Your task to perform on an android device: toggle notification dots Image 0: 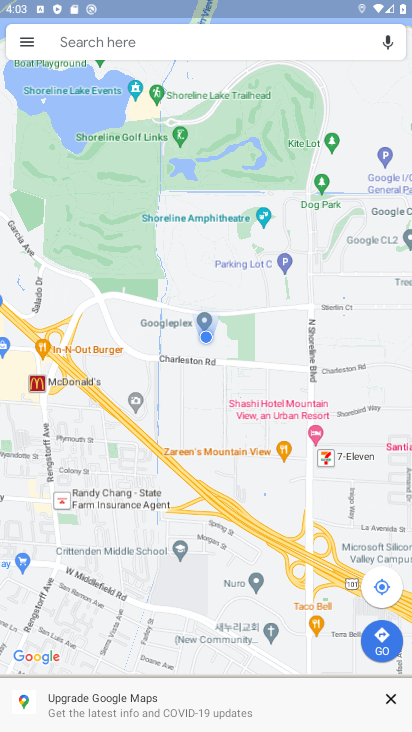
Step 0: press home button
Your task to perform on an android device: toggle notification dots Image 1: 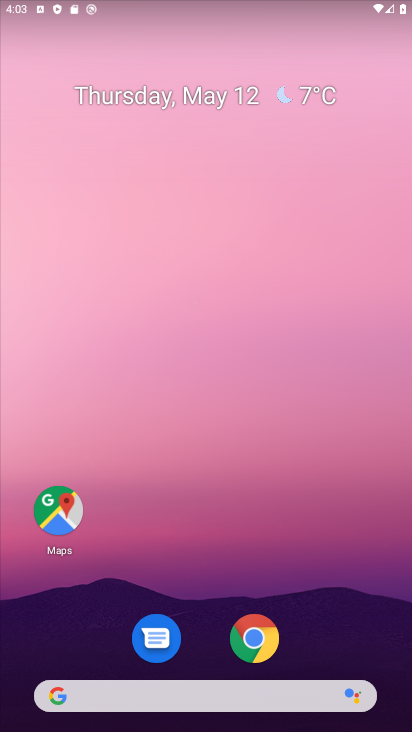
Step 1: drag from (316, 626) to (260, 118)
Your task to perform on an android device: toggle notification dots Image 2: 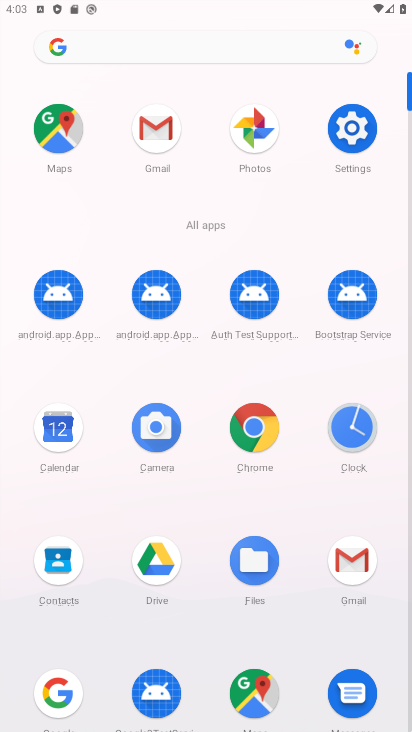
Step 2: click (341, 137)
Your task to perform on an android device: toggle notification dots Image 3: 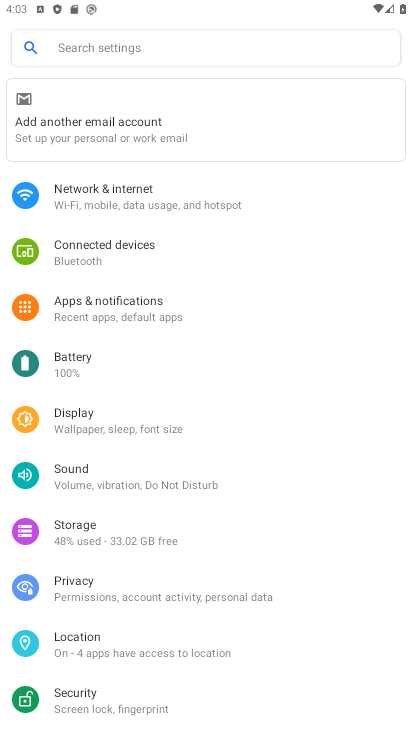
Step 3: click (126, 301)
Your task to perform on an android device: toggle notification dots Image 4: 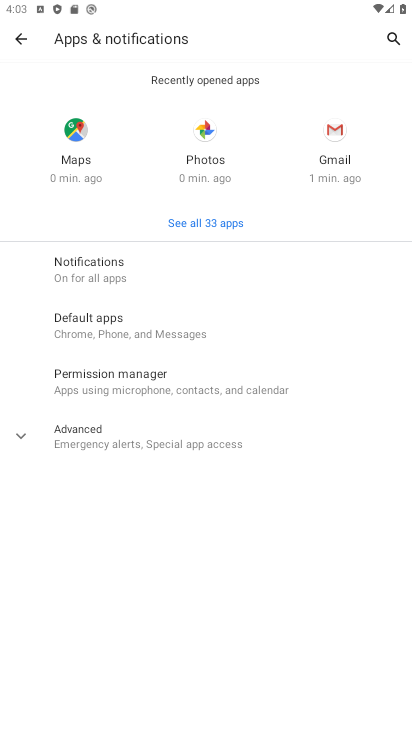
Step 4: click (157, 279)
Your task to perform on an android device: toggle notification dots Image 5: 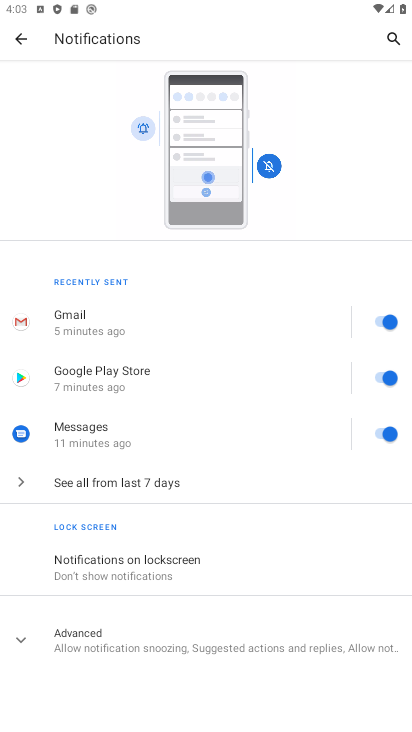
Step 5: click (150, 637)
Your task to perform on an android device: toggle notification dots Image 6: 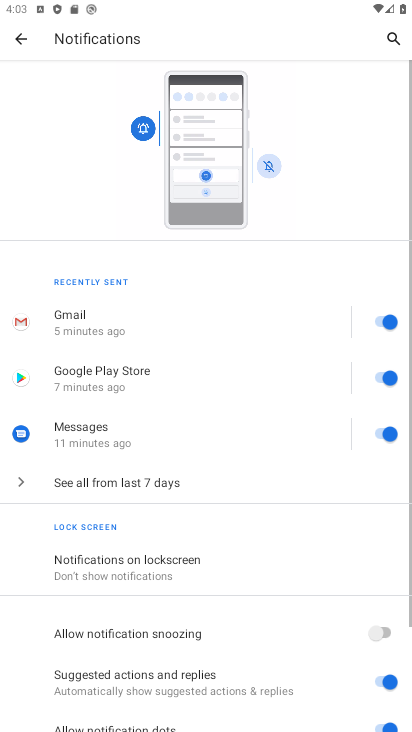
Step 6: drag from (220, 687) to (227, 385)
Your task to perform on an android device: toggle notification dots Image 7: 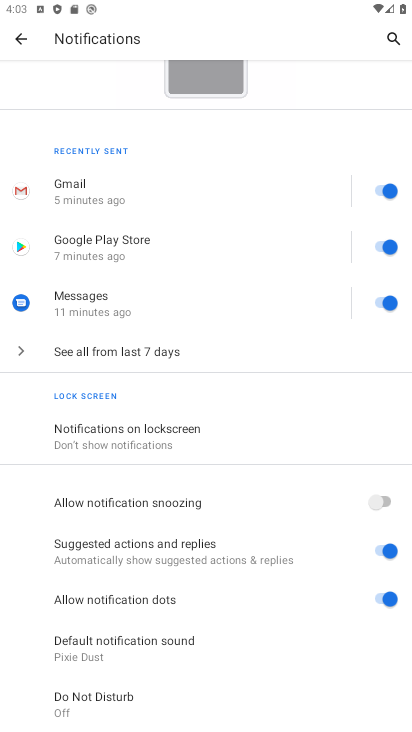
Step 7: click (384, 596)
Your task to perform on an android device: toggle notification dots Image 8: 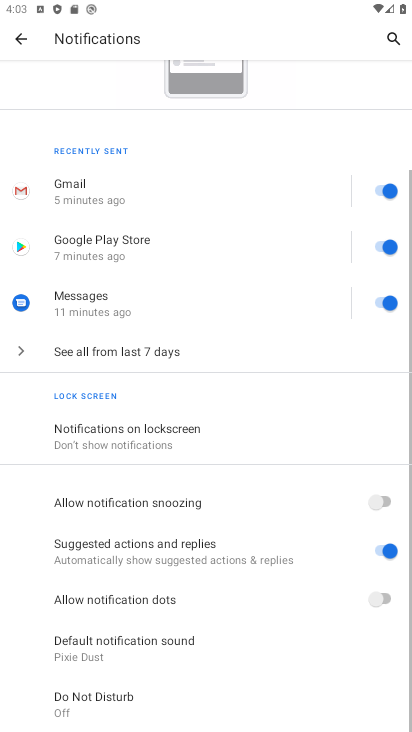
Step 8: task complete